Your task to perform on an android device: see creations saved in the google photos Image 0: 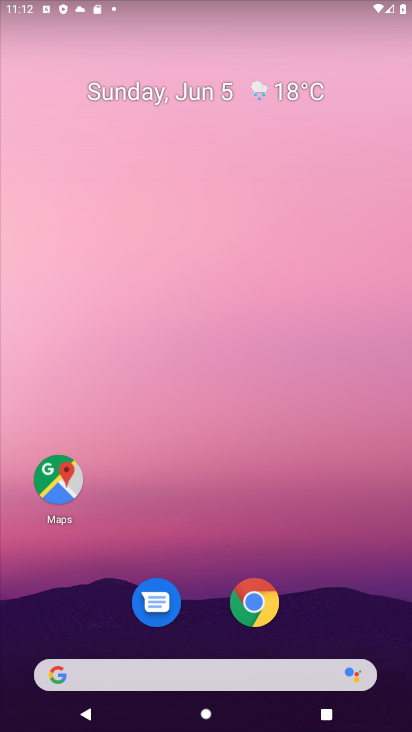
Step 0: drag from (348, 622) to (276, 134)
Your task to perform on an android device: see creations saved in the google photos Image 1: 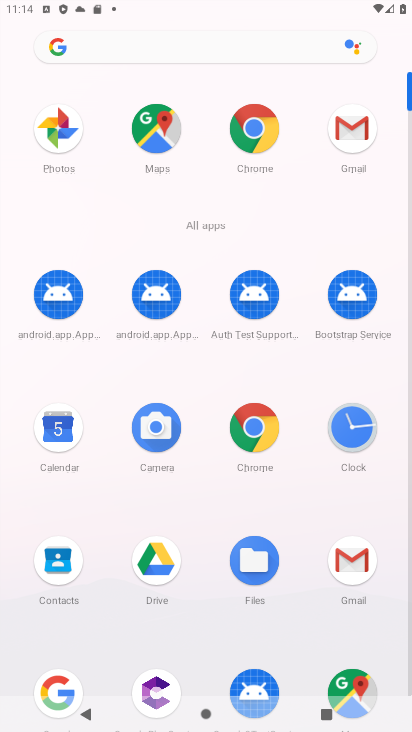
Step 1: click (79, 147)
Your task to perform on an android device: see creations saved in the google photos Image 2: 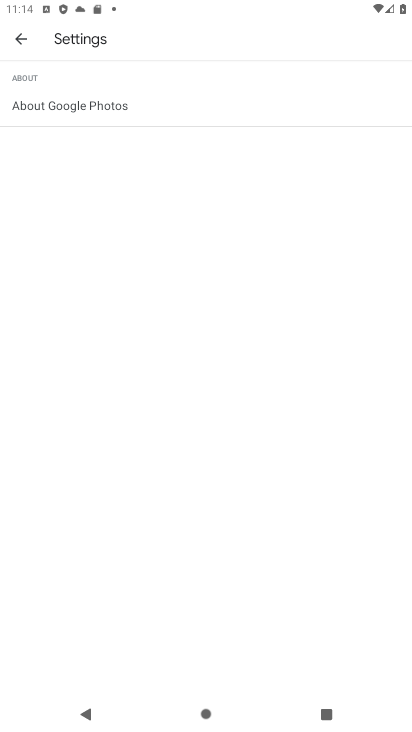
Step 2: task complete